Your task to perform on an android device: What's the weather? Image 0: 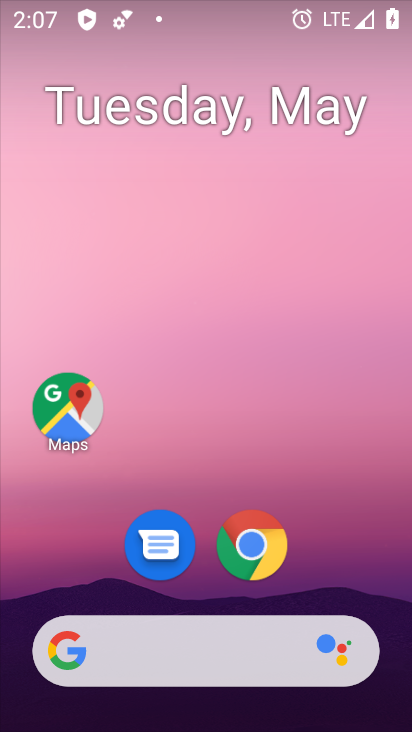
Step 0: drag from (367, 535) to (269, 5)
Your task to perform on an android device: What's the weather? Image 1: 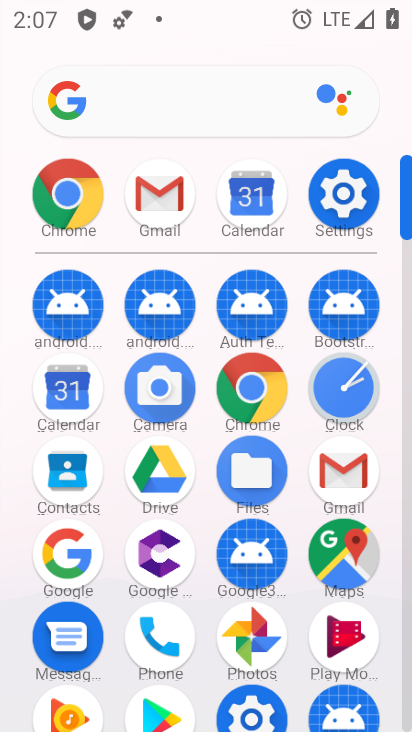
Step 1: drag from (14, 582) to (0, 189)
Your task to perform on an android device: What's the weather? Image 2: 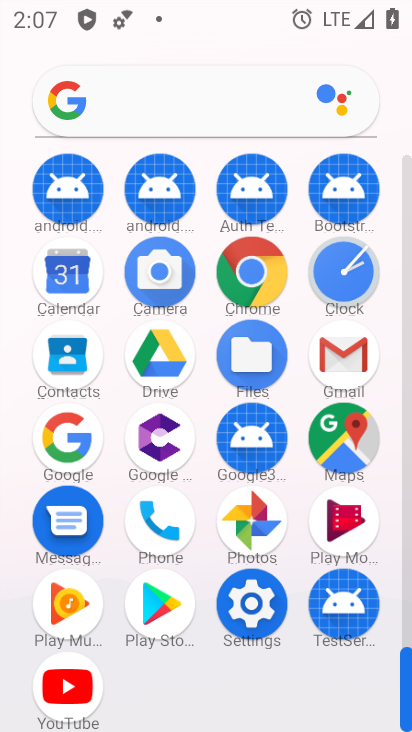
Step 2: click (252, 268)
Your task to perform on an android device: What's the weather? Image 3: 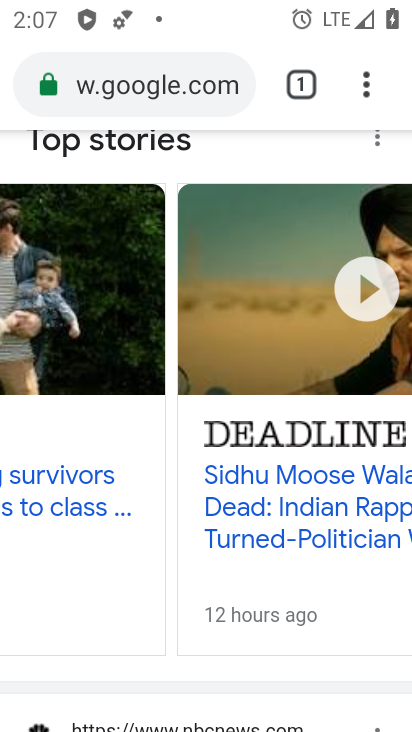
Step 3: click (177, 68)
Your task to perform on an android device: What's the weather? Image 4: 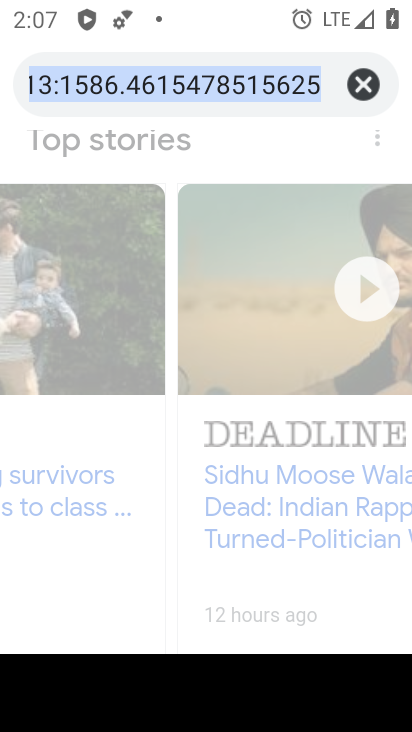
Step 4: click (365, 83)
Your task to perform on an android device: What's the weather? Image 5: 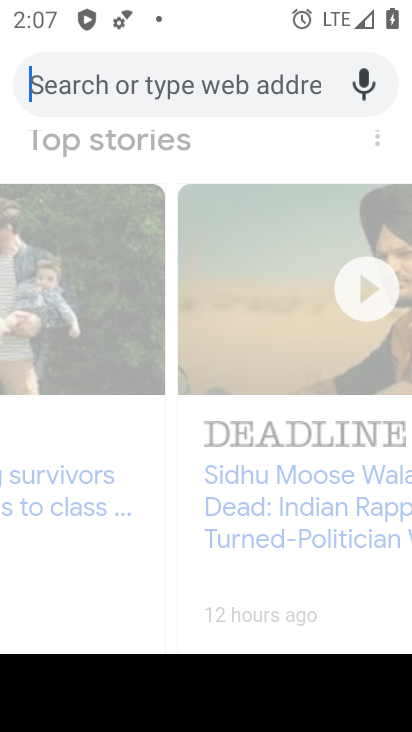
Step 5: type "What's the weather?"
Your task to perform on an android device: What's the weather? Image 6: 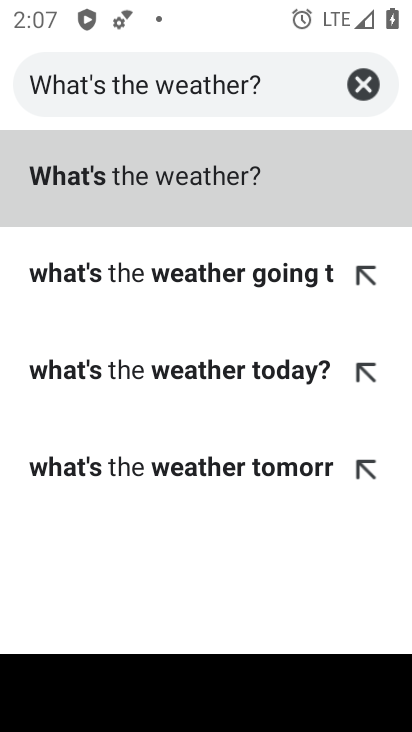
Step 6: click (275, 190)
Your task to perform on an android device: What's the weather? Image 7: 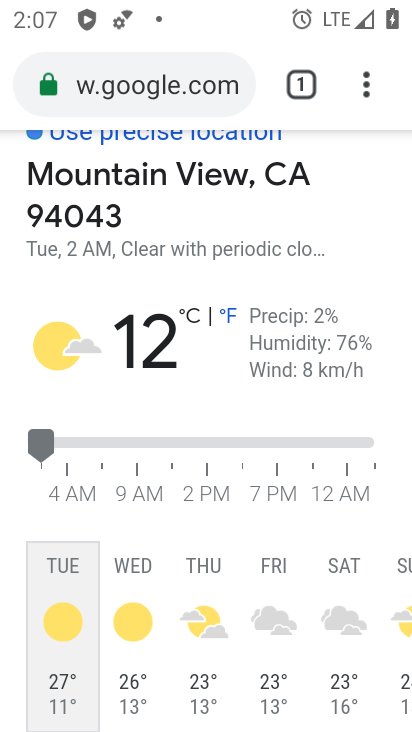
Step 7: task complete